Your task to perform on an android device: empty trash in the gmail app Image 0: 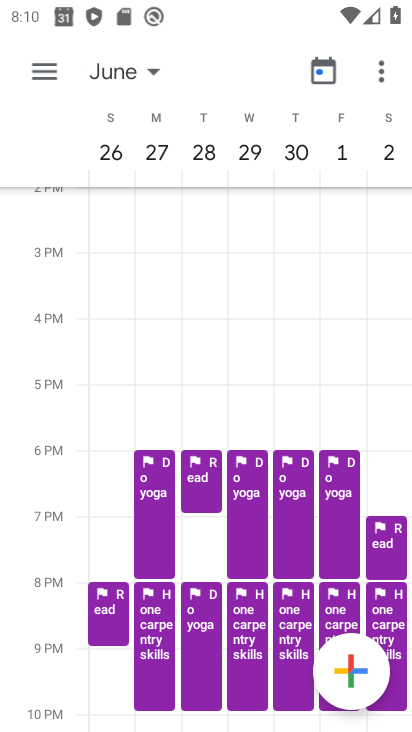
Step 0: drag from (71, 609) to (191, 269)
Your task to perform on an android device: empty trash in the gmail app Image 1: 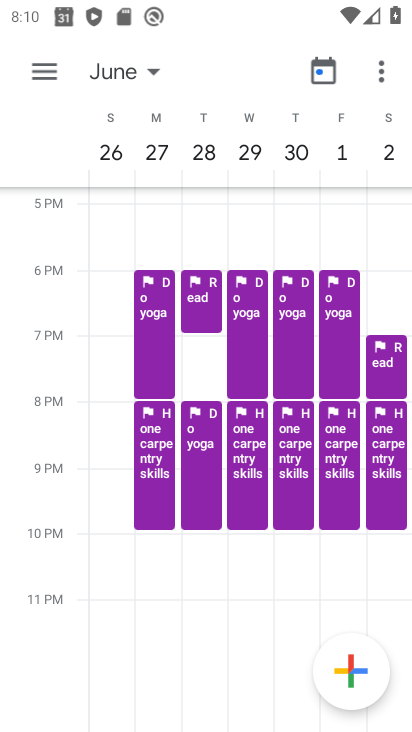
Step 1: press home button
Your task to perform on an android device: empty trash in the gmail app Image 2: 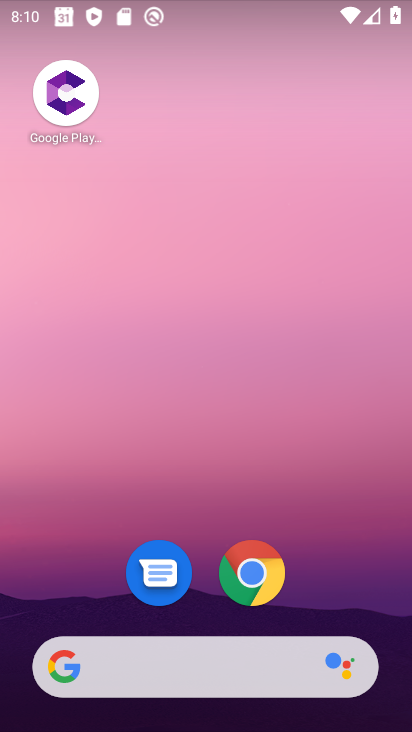
Step 2: drag from (31, 646) to (193, 159)
Your task to perform on an android device: empty trash in the gmail app Image 3: 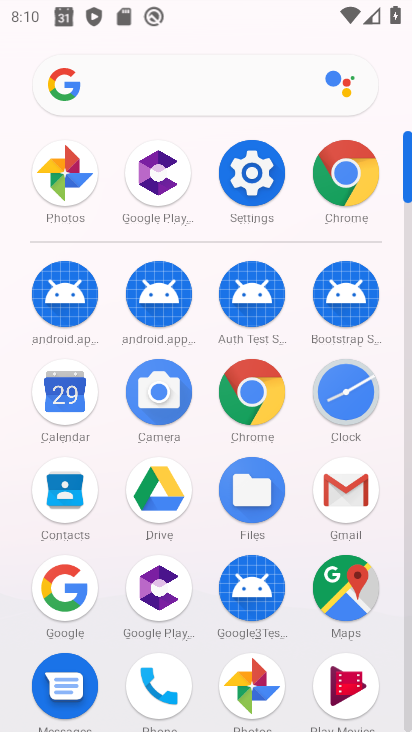
Step 3: click (352, 497)
Your task to perform on an android device: empty trash in the gmail app Image 4: 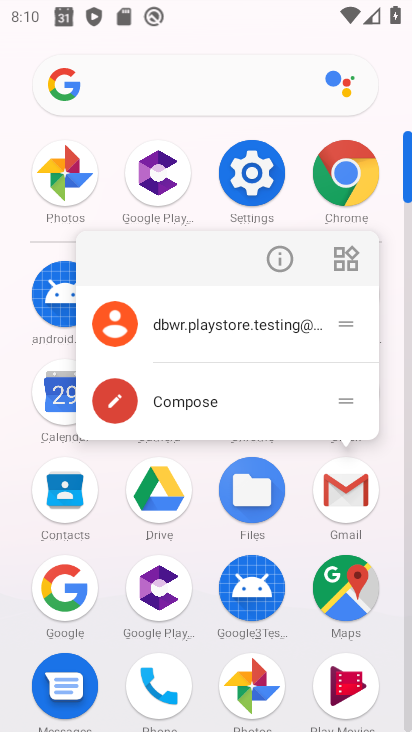
Step 4: click (356, 471)
Your task to perform on an android device: empty trash in the gmail app Image 5: 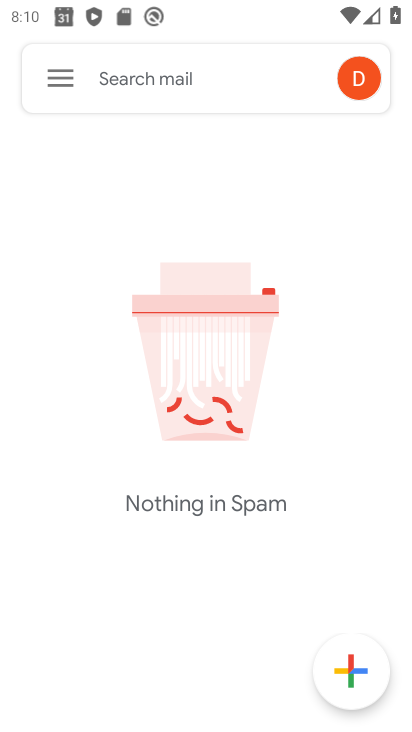
Step 5: click (68, 90)
Your task to perform on an android device: empty trash in the gmail app Image 6: 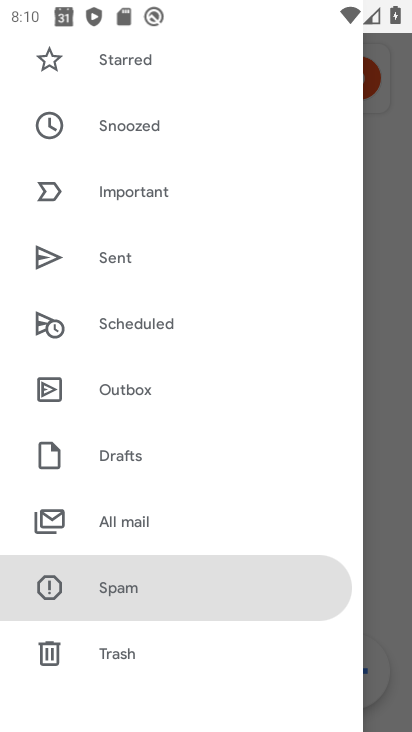
Step 6: click (157, 663)
Your task to perform on an android device: empty trash in the gmail app Image 7: 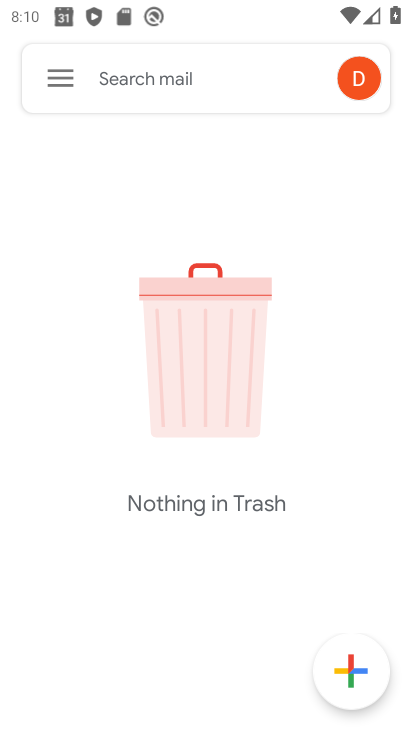
Step 7: task complete